Your task to perform on an android device: open app "Calculator" (install if not already installed) Image 0: 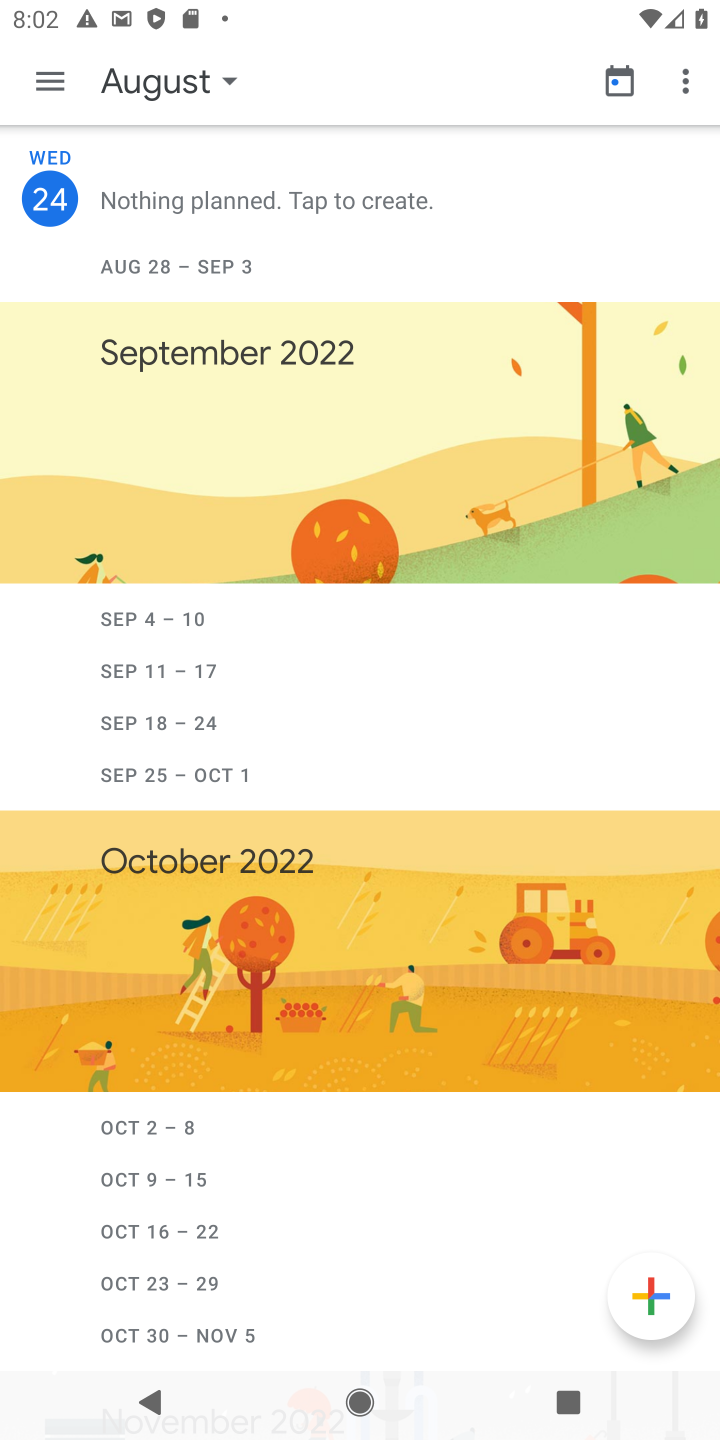
Step 0: press home button
Your task to perform on an android device: open app "Calculator" (install if not already installed) Image 1: 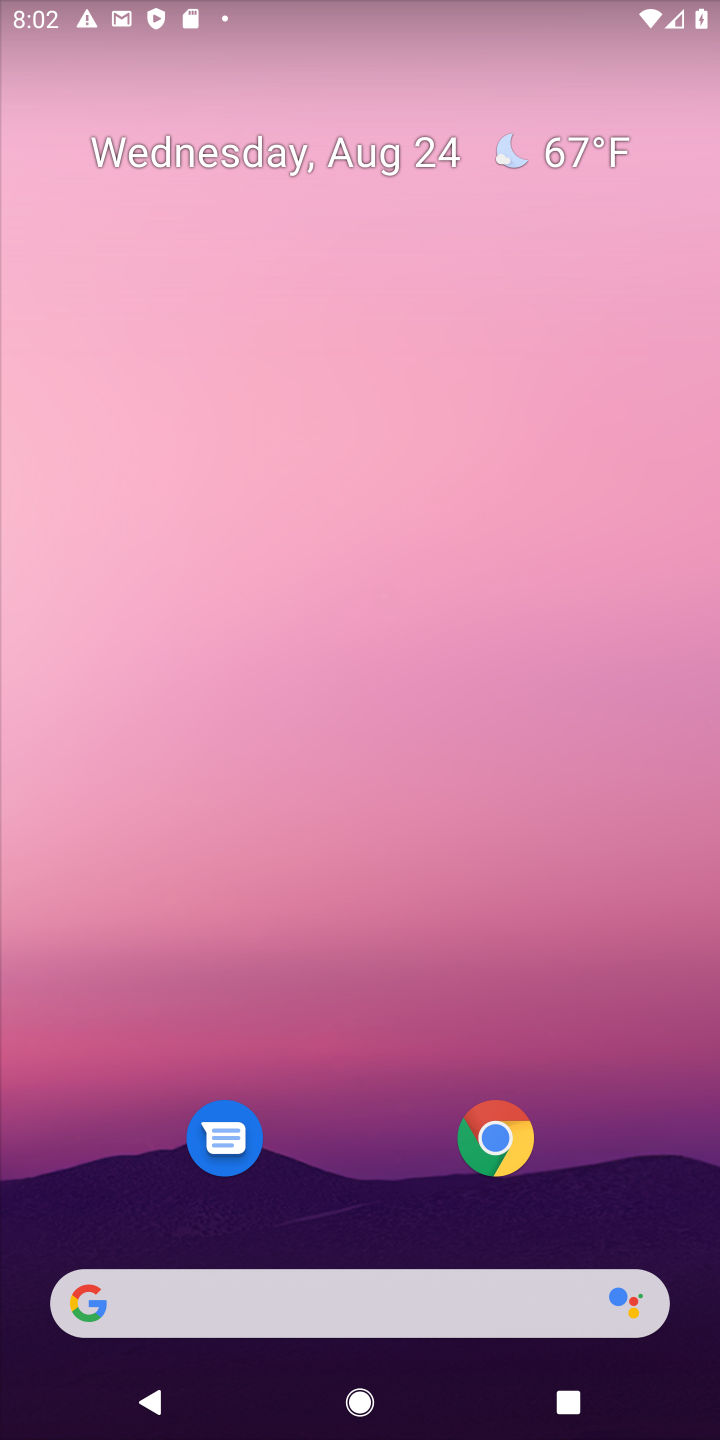
Step 1: drag from (337, 1194) to (205, 251)
Your task to perform on an android device: open app "Calculator" (install if not already installed) Image 2: 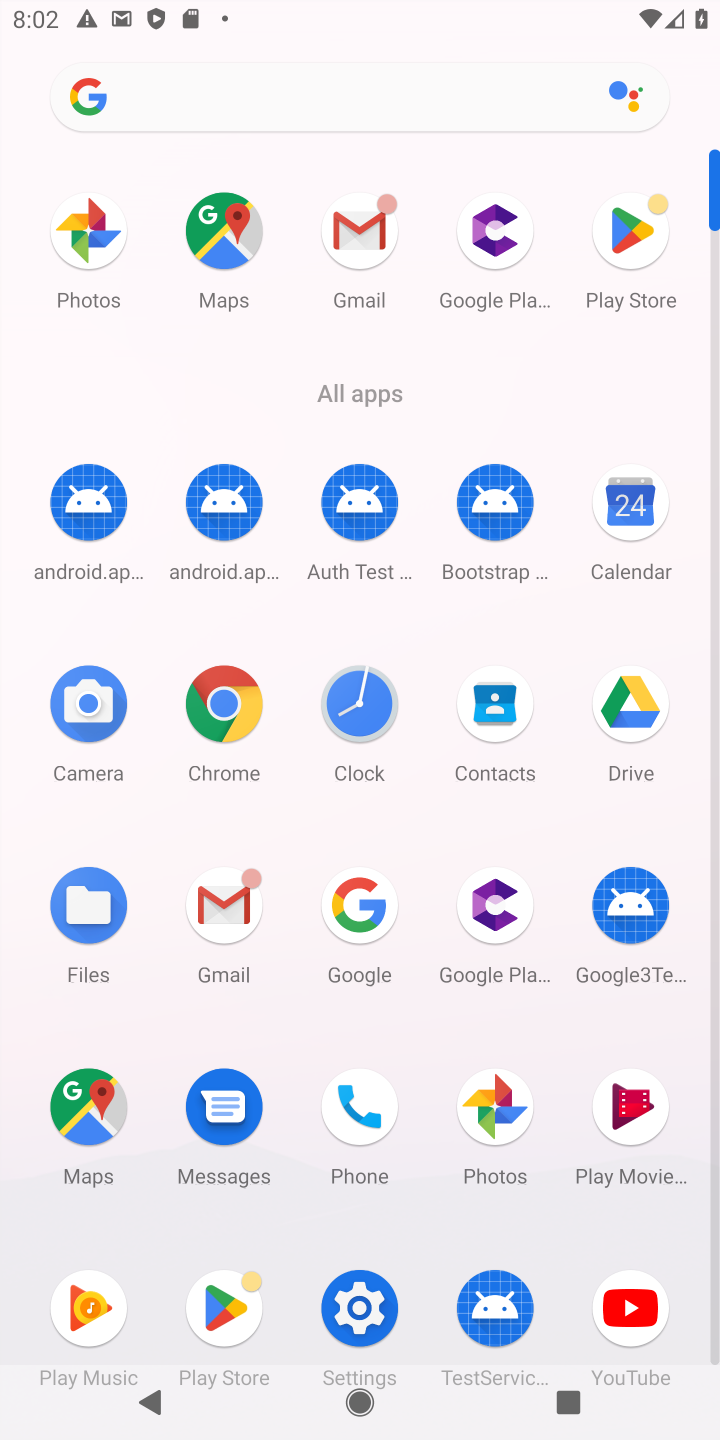
Step 2: click (613, 245)
Your task to perform on an android device: open app "Calculator" (install if not already installed) Image 3: 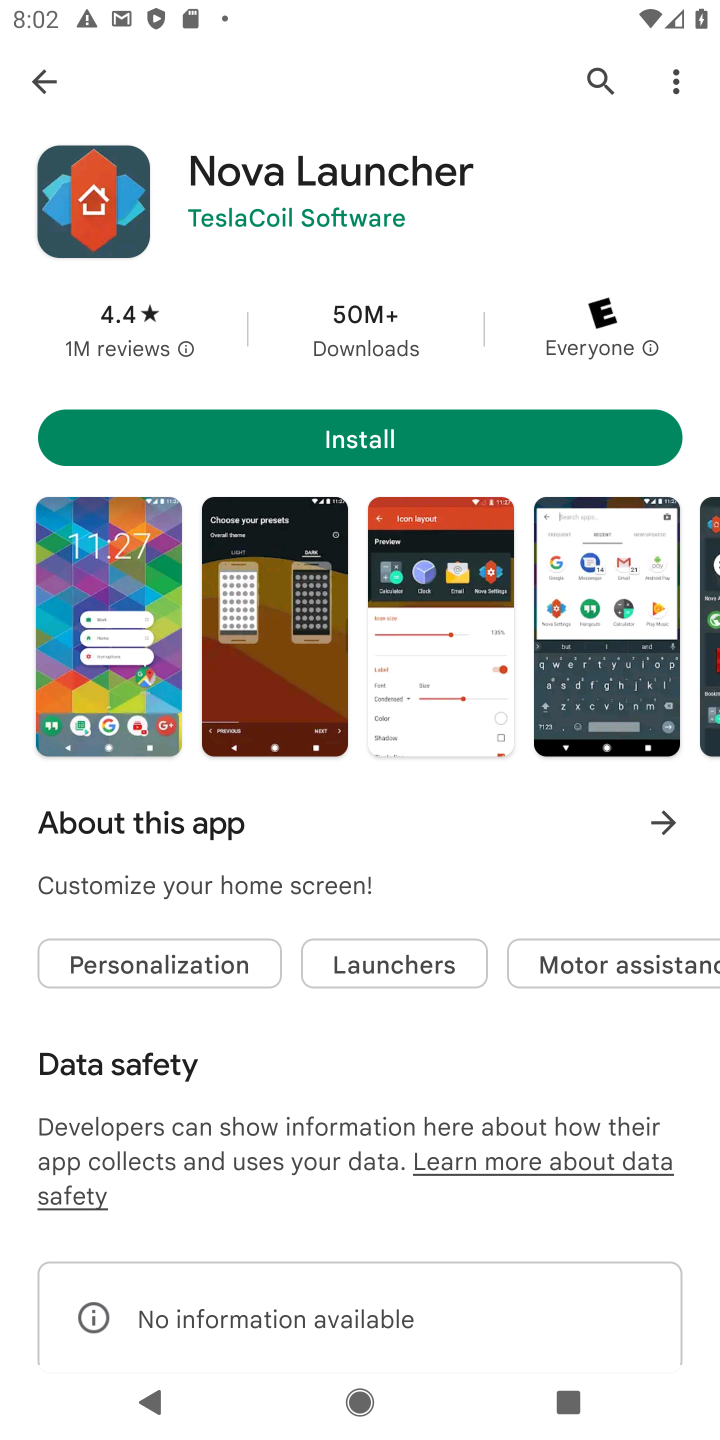
Step 3: click (55, 71)
Your task to perform on an android device: open app "Calculator" (install if not already installed) Image 4: 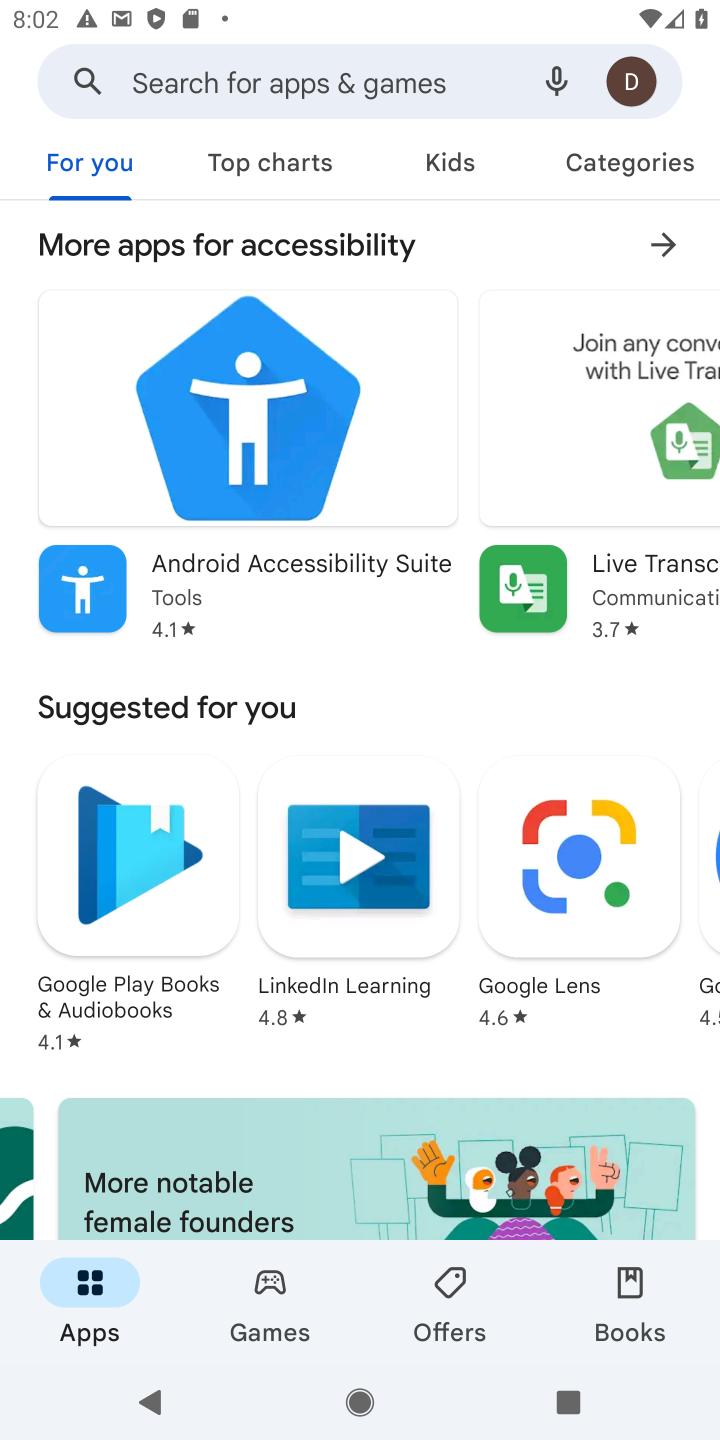
Step 4: click (183, 76)
Your task to perform on an android device: open app "Calculator" (install if not already installed) Image 5: 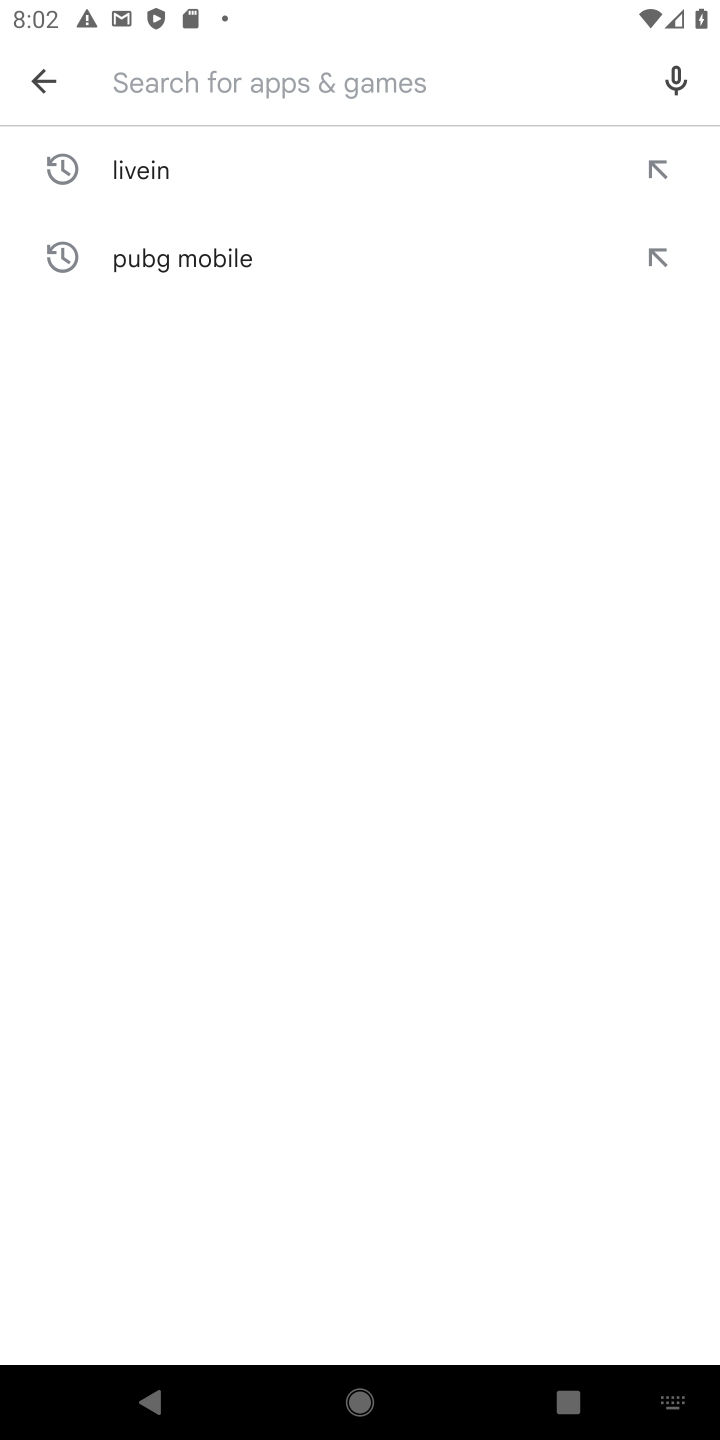
Step 5: type "Calculator"
Your task to perform on an android device: open app "Calculator" (install if not already installed) Image 6: 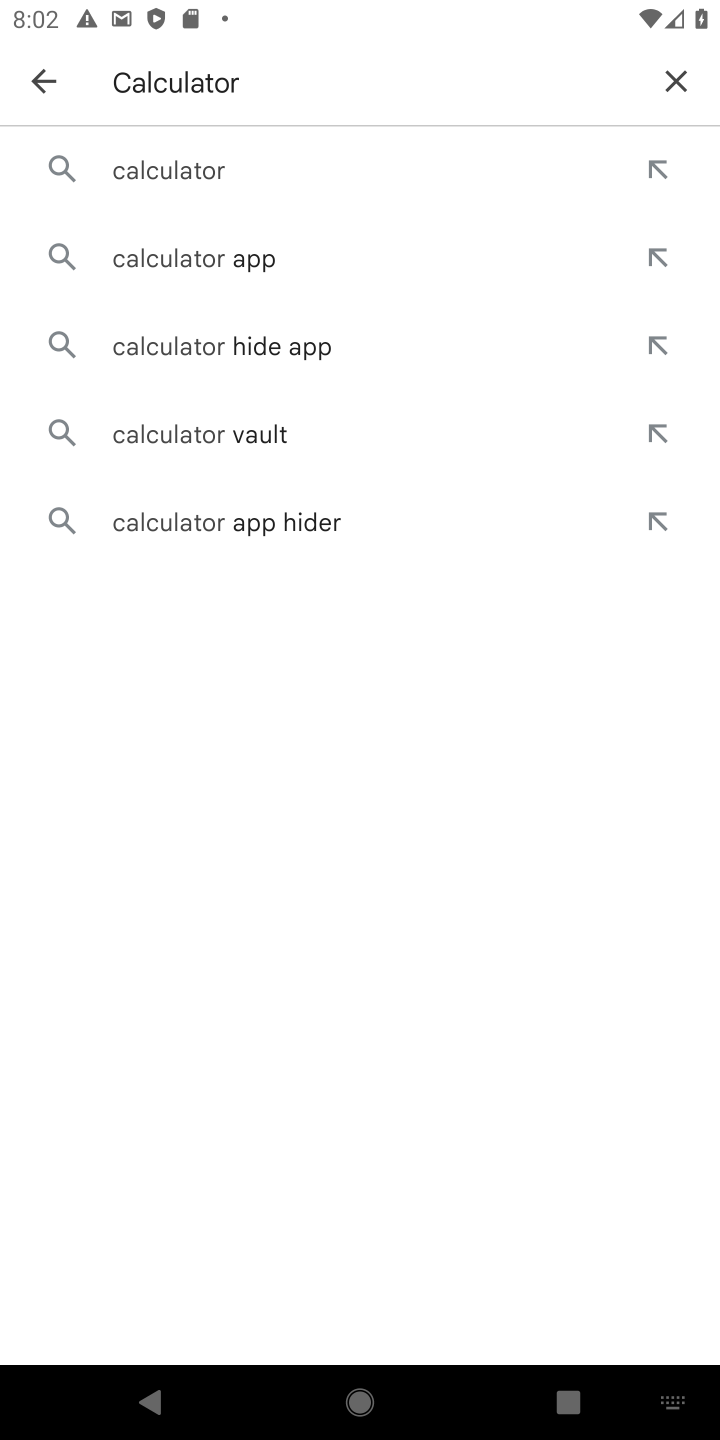
Step 6: click (175, 170)
Your task to perform on an android device: open app "Calculator" (install if not already installed) Image 7: 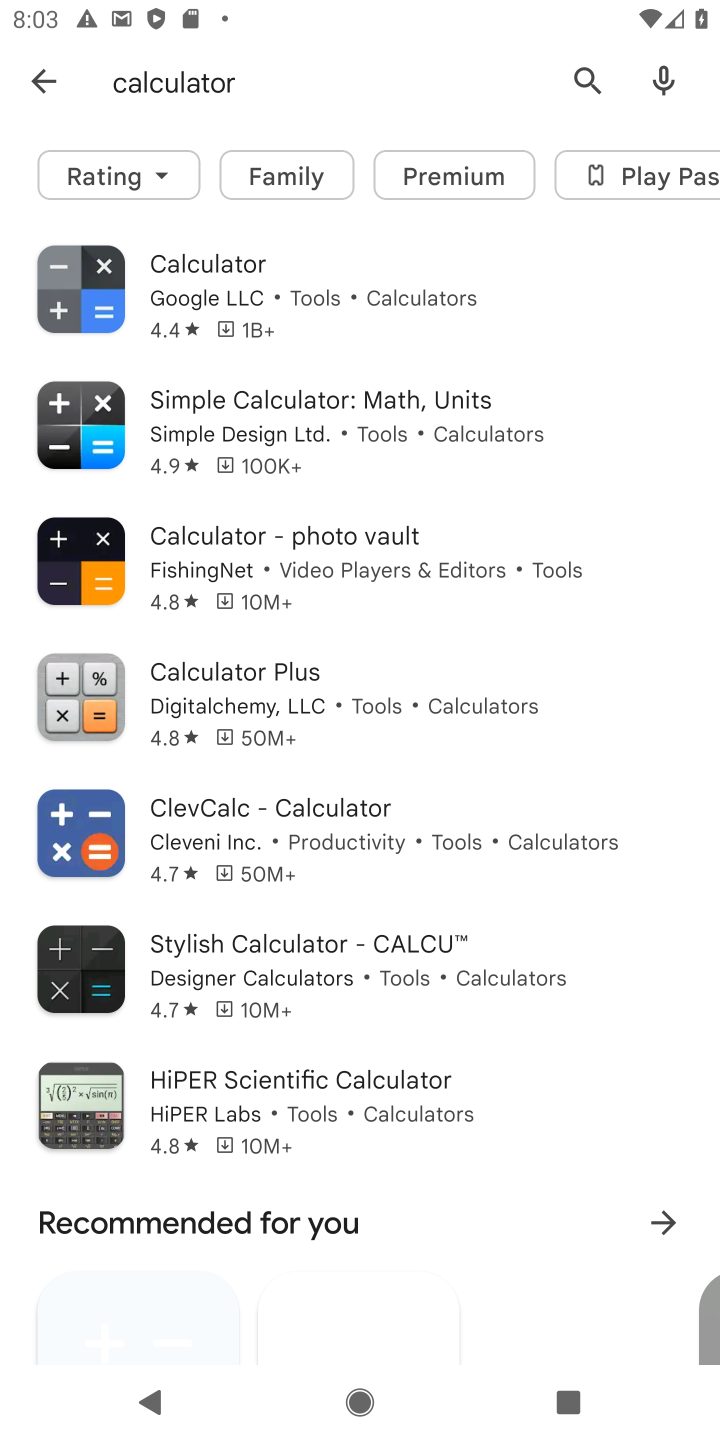
Step 7: click (205, 287)
Your task to perform on an android device: open app "Calculator" (install if not already installed) Image 8: 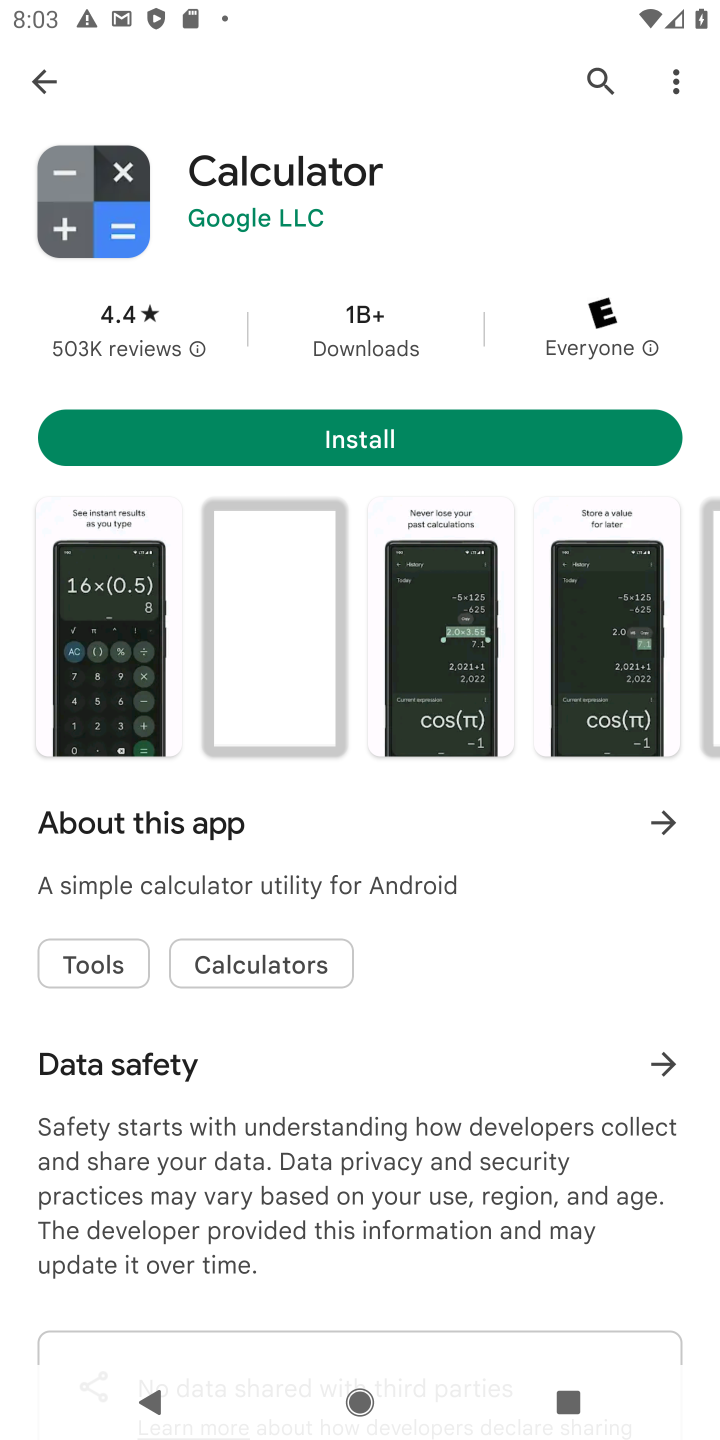
Step 8: click (311, 413)
Your task to perform on an android device: open app "Calculator" (install if not already installed) Image 9: 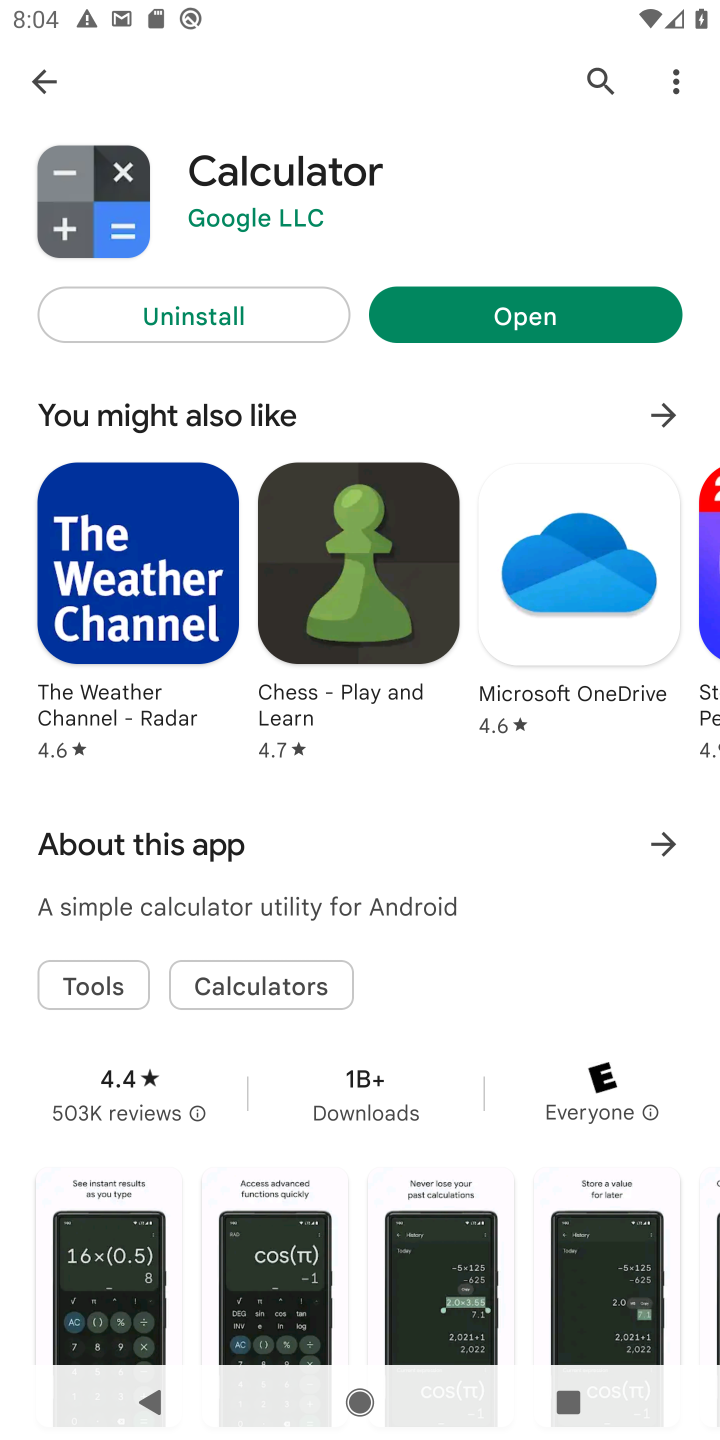
Step 9: click (524, 292)
Your task to perform on an android device: open app "Calculator" (install if not already installed) Image 10: 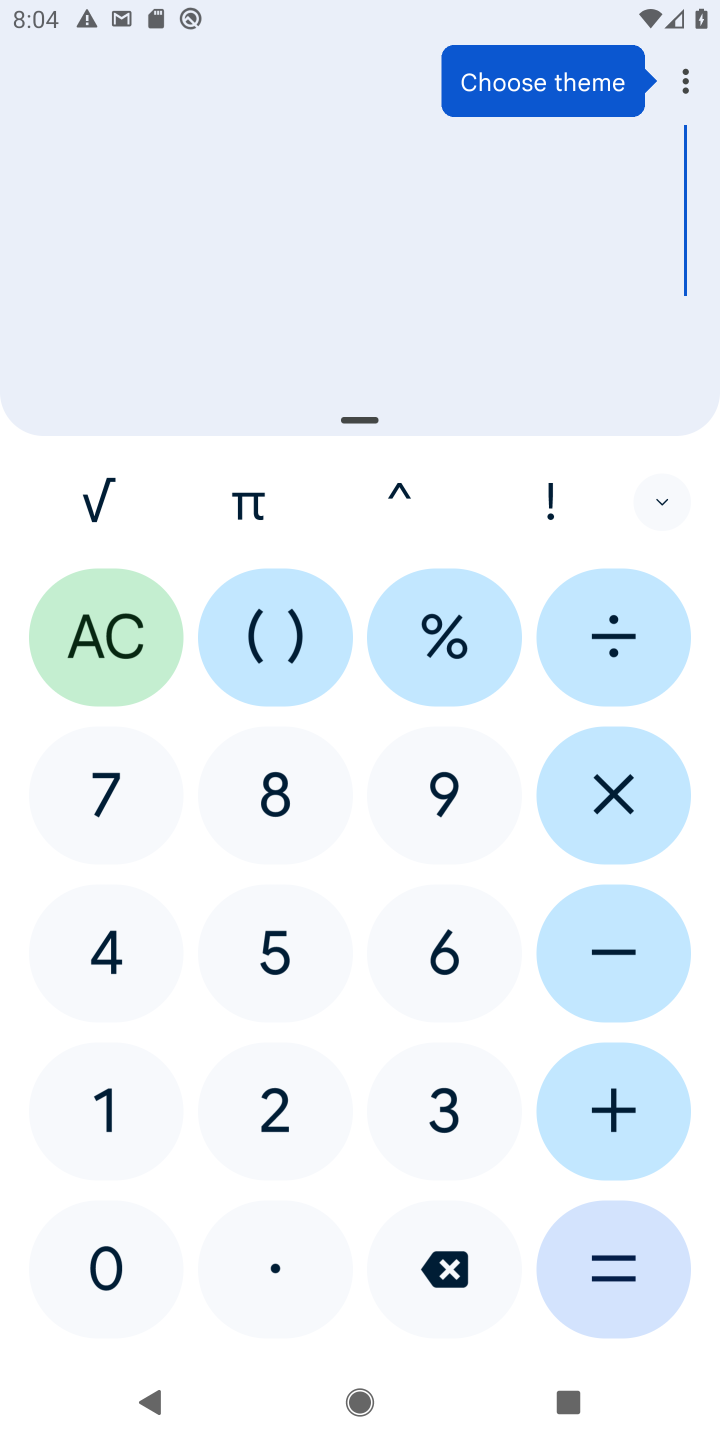
Step 10: task complete